Your task to perform on an android device: Open display settings Image 0: 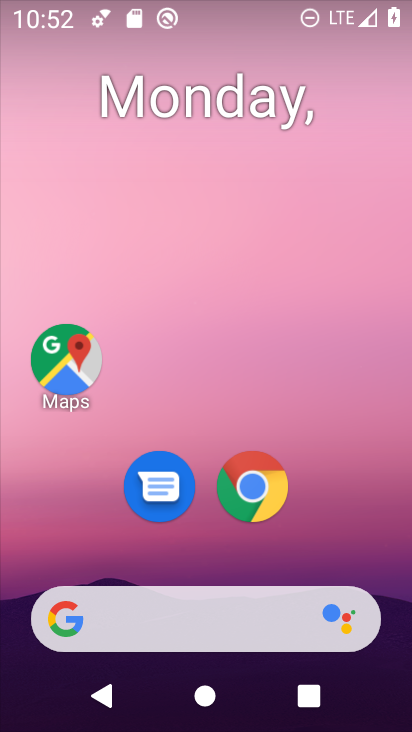
Step 0: drag from (52, 571) to (291, 195)
Your task to perform on an android device: Open display settings Image 1: 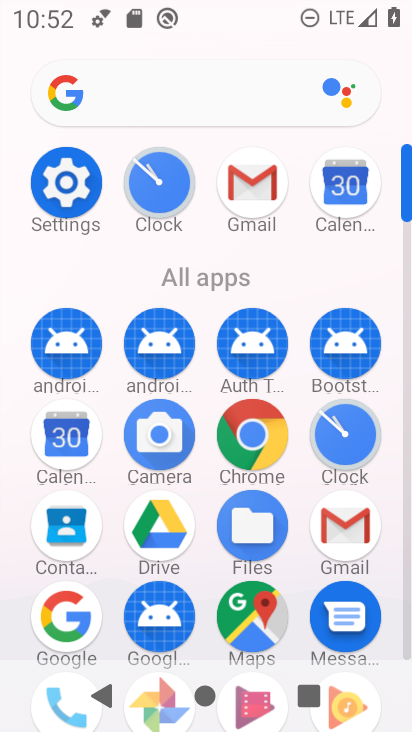
Step 1: click (83, 172)
Your task to perform on an android device: Open display settings Image 2: 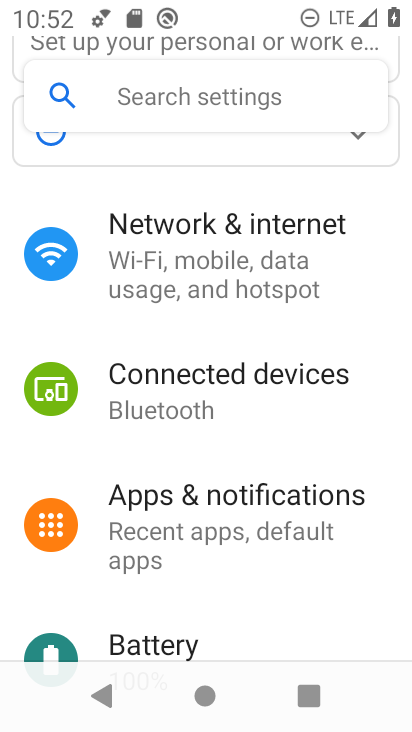
Step 2: drag from (34, 542) to (327, 133)
Your task to perform on an android device: Open display settings Image 3: 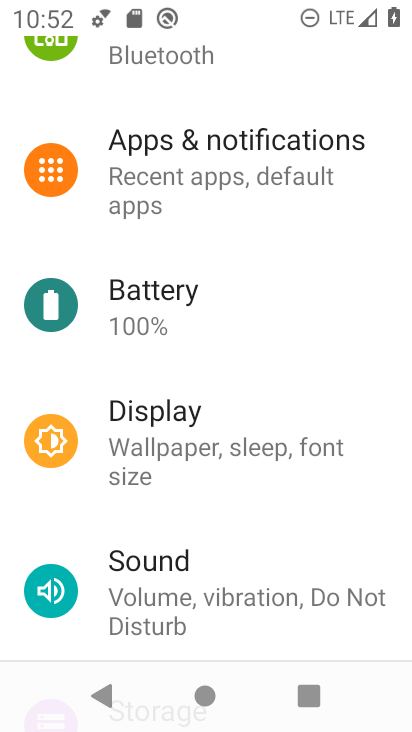
Step 3: drag from (71, 619) to (323, 239)
Your task to perform on an android device: Open display settings Image 4: 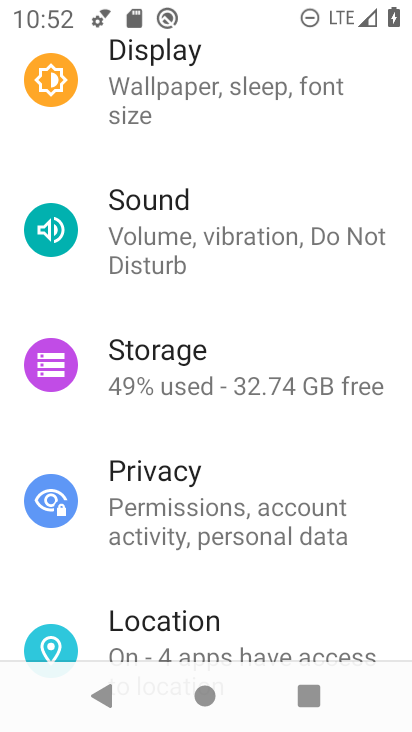
Step 4: click (201, 518)
Your task to perform on an android device: Open display settings Image 5: 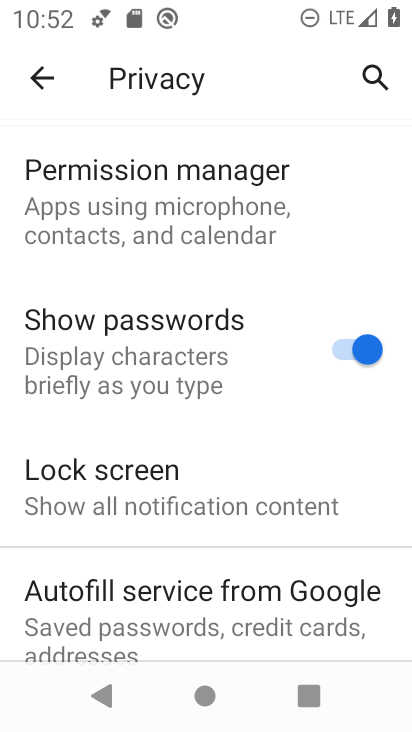
Step 5: task complete